Your task to perform on an android device: turn off notifications settings in the gmail app Image 0: 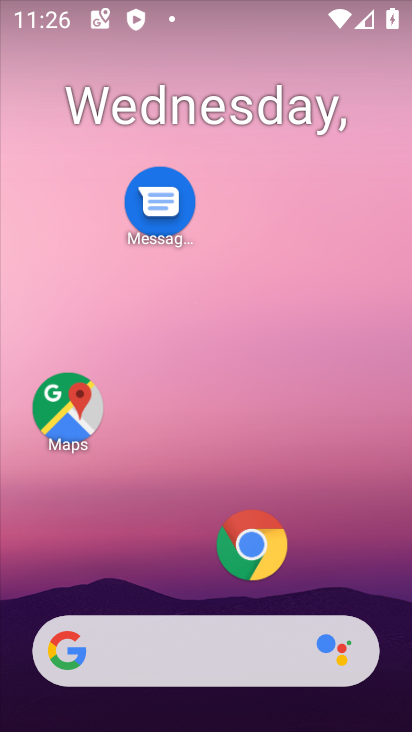
Step 0: drag from (189, 591) to (219, 202)
Your task to perform on an android device: turn off notifications settings in the gmail app Image 1: 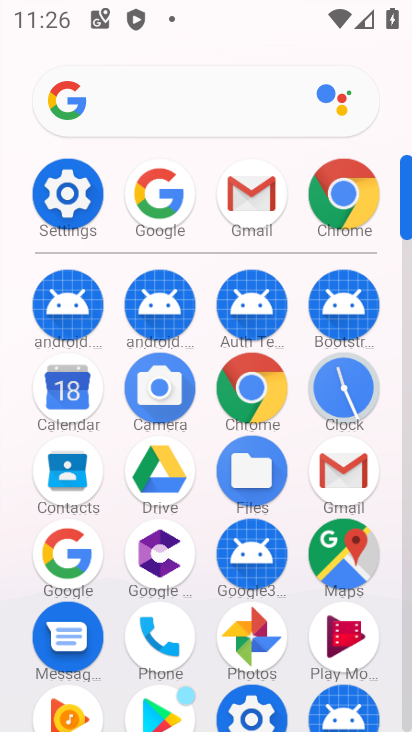
Step 1: click (234, 206)
Your task to perform on an android device: turn off notifications settings in the gmail app Image 2: 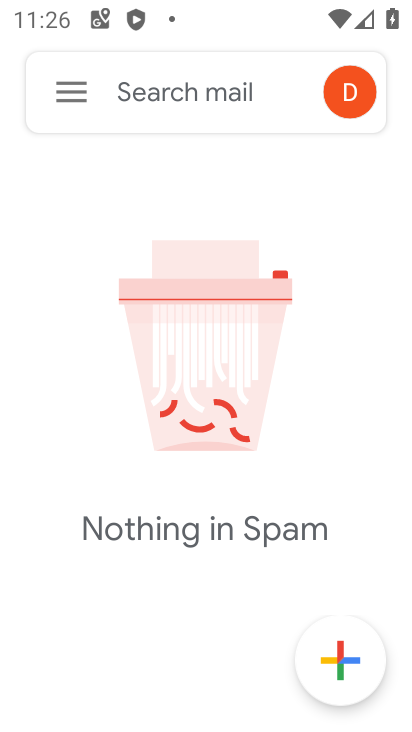
Step 2: click (39, 98)
Your task to perform on an android device: turn off notifications settings in the gmail app Image 3: 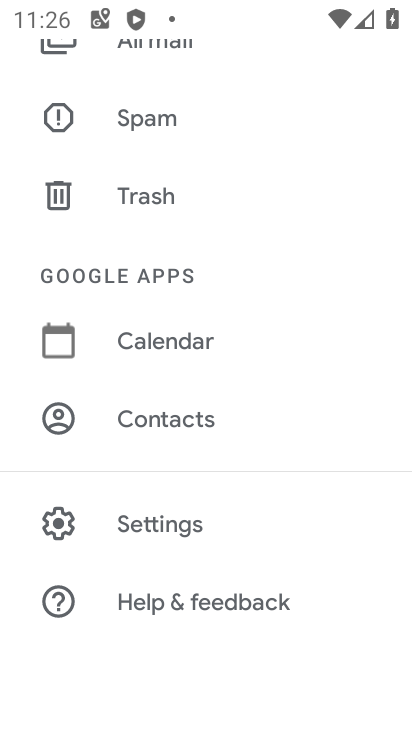
Step 3: click (183, 514)
Your task to perform on an android device: turn off notifications settings in the gmail app Image 4: 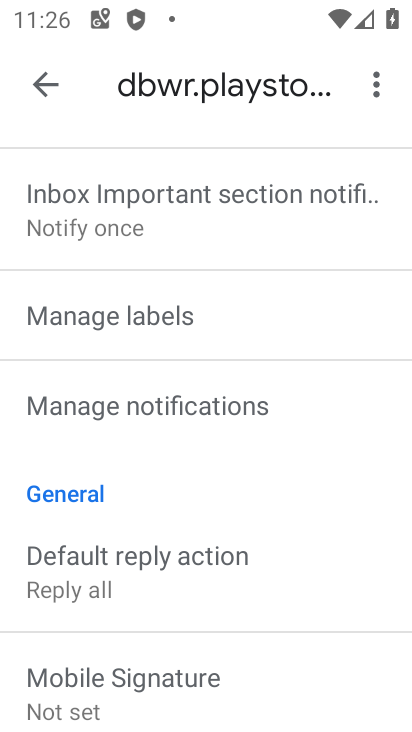
Step 4: drag from (217, 590) to (231, 320)
Your task to perform on an android device: turn off notifications settings in the gmail app Image 5: 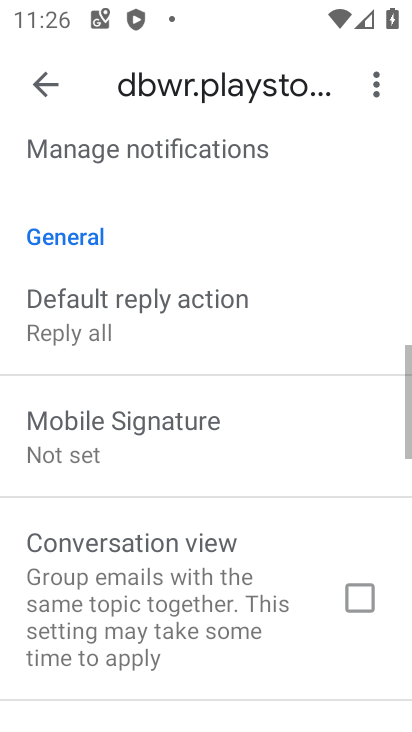
Step 5: drag from (246, 550) to (265, 225)
Your task to perform on an android device: turn off notifications settings in the gmail app Image 6: 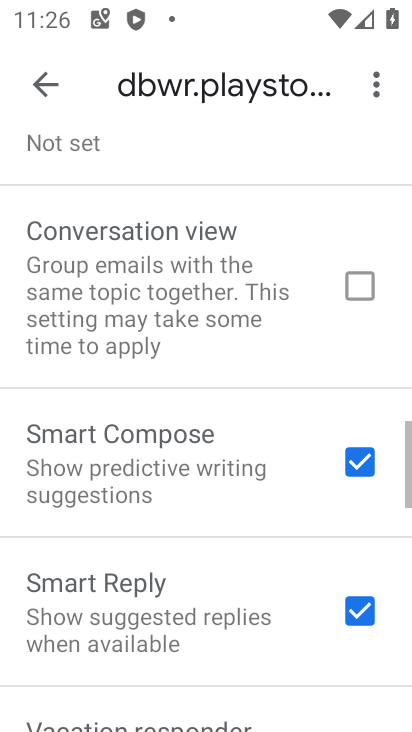
Step 6: drag from (254, 592) to (272, 269)
Your task to perform on an android device: turn off notifications settings in the gmail app Image 7: 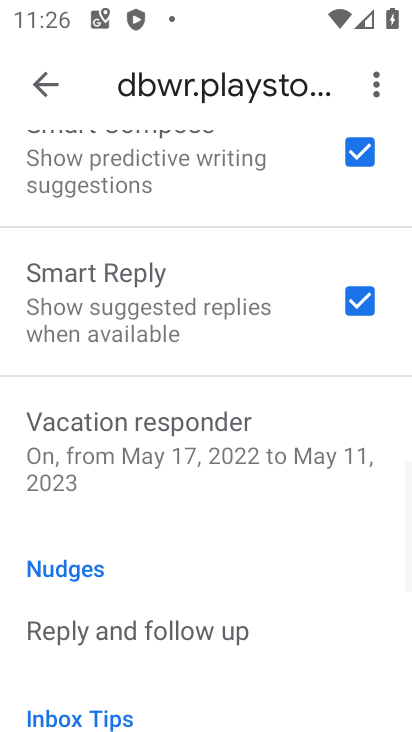
Step 7: drag from (256, 609) to (256, 281)
Your task to perform on an android device: turn off notifications settings in the gmail app Image 8: 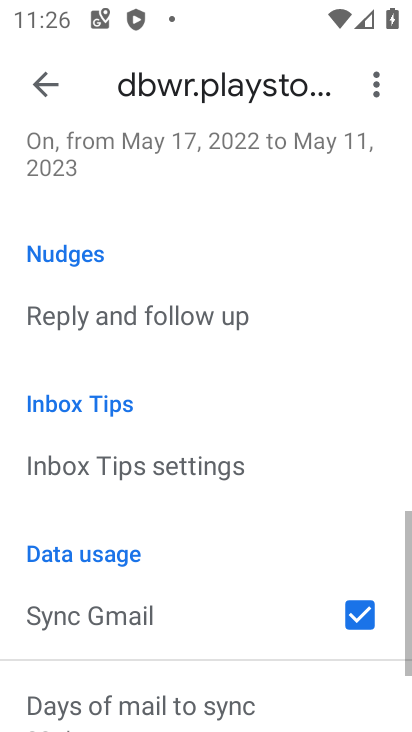
Step 8: drag from (216, 592) to (216, 320)
Your task to perform on an android device: turn off notifications settings in the gmail app Image 9: 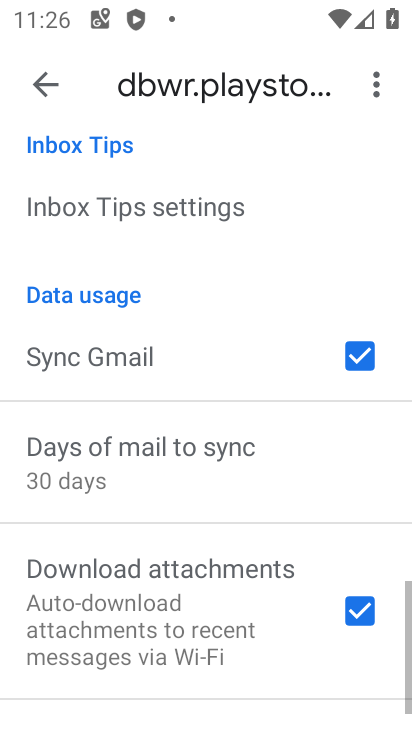
Step 9: drag from (213, 605) to (206, 323)
Your task to perform on an android device: turn off notifications settings in the gmail app Image 10: 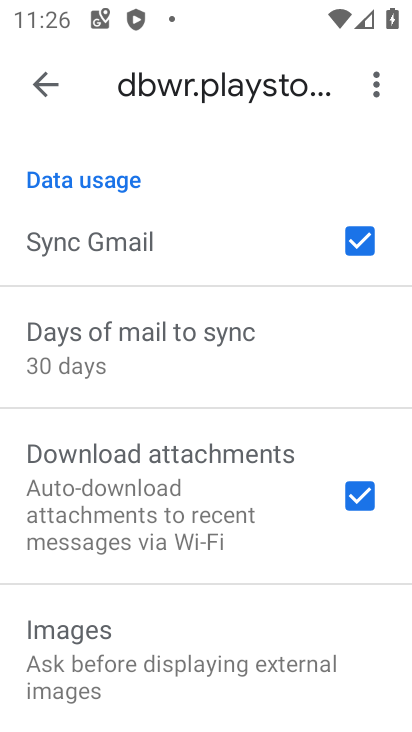
Step 10: drag from (183, 248) to (230, 567)
Your task to perform on an android device: turn off notifications settings in the gmail app Image 11: 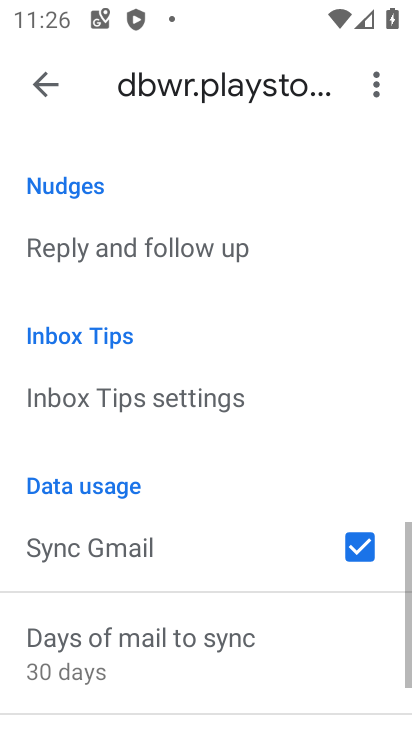
Step 11: drag from (212, 300) to (212, 570)
Your task to perform on an android device: turn off notifications settings in the gmail app Image 12: 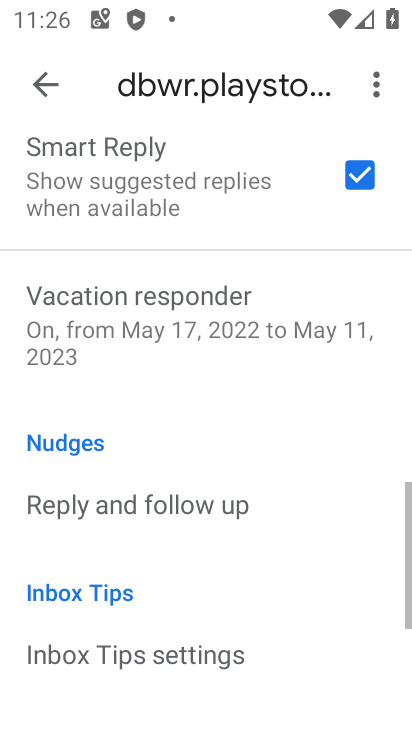
Step 12: drag from (213, 409) to (215, 564)
Your task to perform on an android device: turn off notifications settings in the gmail app Image 13: 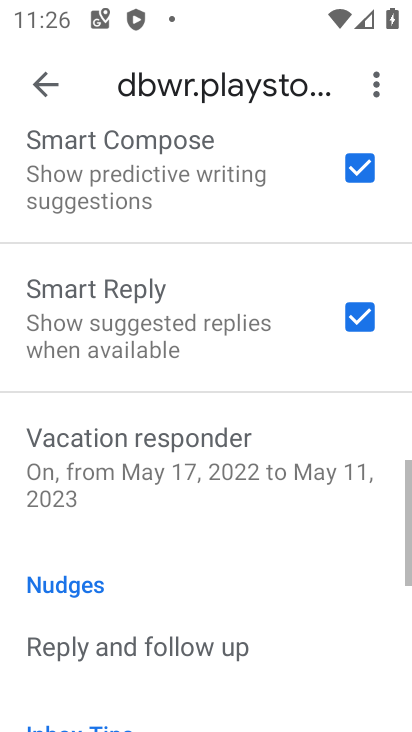
Step 13: drag from (224, 281) to (242, 560)
Your task to perform on an android device: turn off notifications settings in the gmail app Image 14: 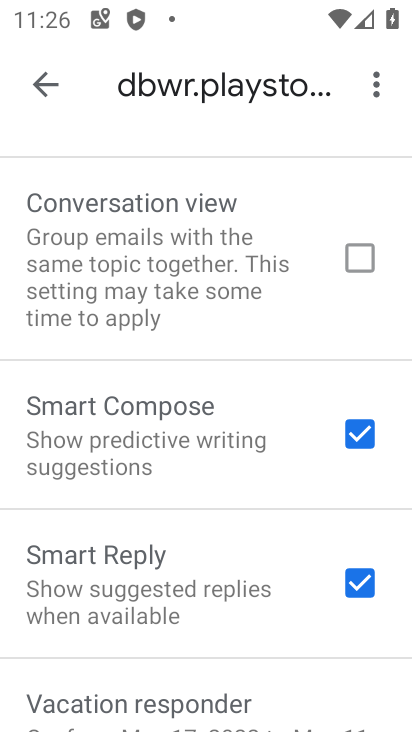
Step 14: drag from (201, 301) to (200, 571)
Your task to perform on an android device: turn off notifications settings in the gmail app Image 15: 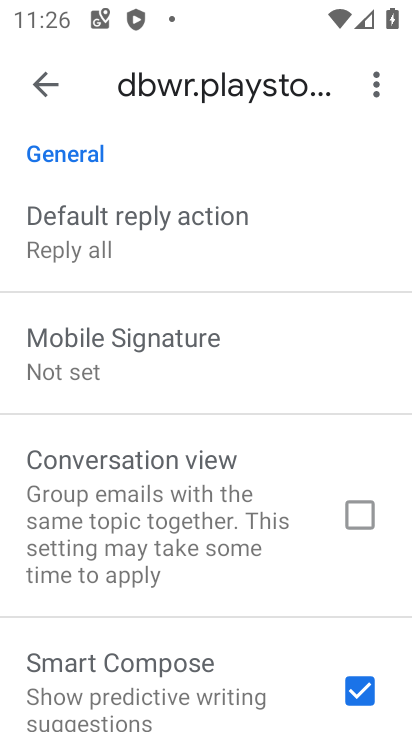
Step 15: drag from (188, 218) to (217, 530)
Your task to perform on an android device: turn off notifications settings in the gmail app Image 16: 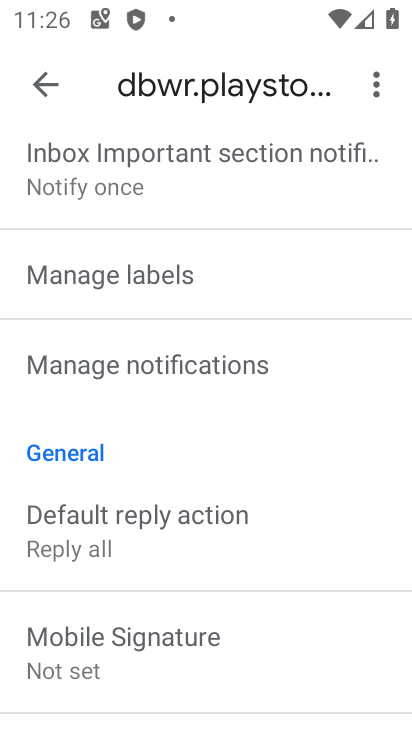
Step 16: click (191, 370)
Your task to perform on an android device: turn off notifications settings in the gmail app Image 17: 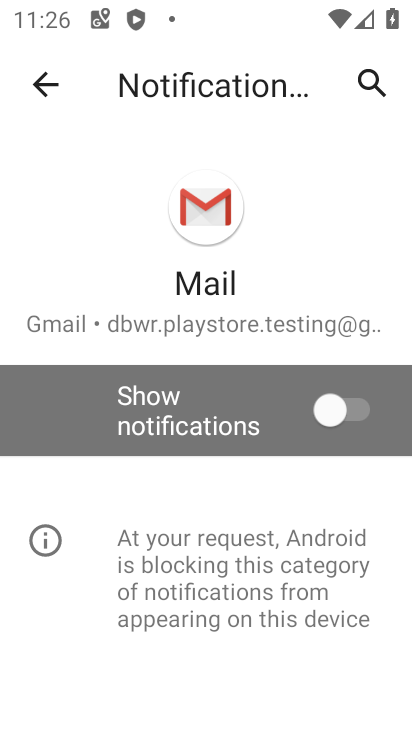
Step 17: task complete